Your task to perform on an android device: change your default location settings in chrome Image 0: 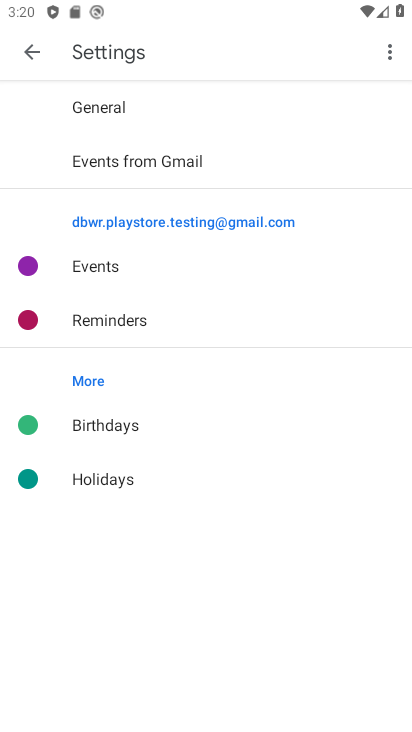
Step 0: press home button
Your task to perform on an android device: change your default location settings in chrome Image 1: 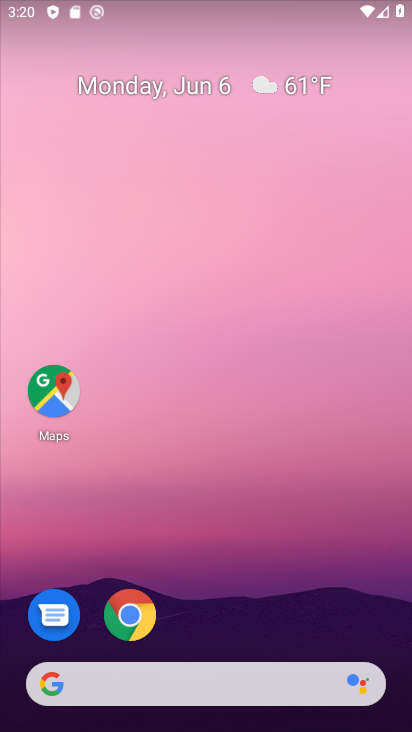
Step 1: click (131, 611)
Your task to perform on an android device: change your default location settings in chrome Image 2: 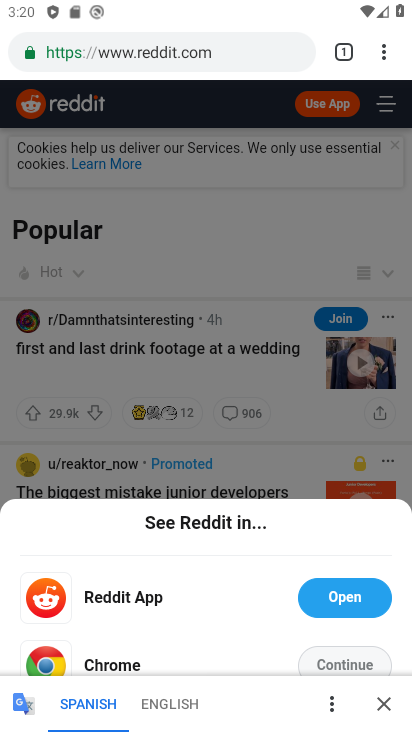
Step 2: click (382, 55)
Your task to perform on an android device: change your default location settings in chrome Image 3: 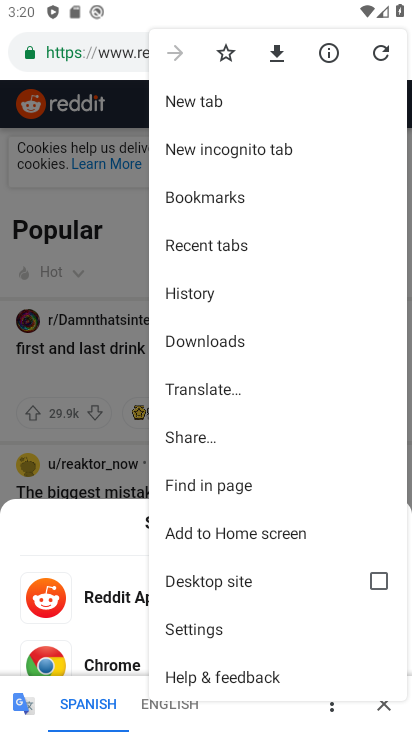
Step 3: click (201, 628)
Your task to perform on an android device: change your default location settings in chrome Image 4: 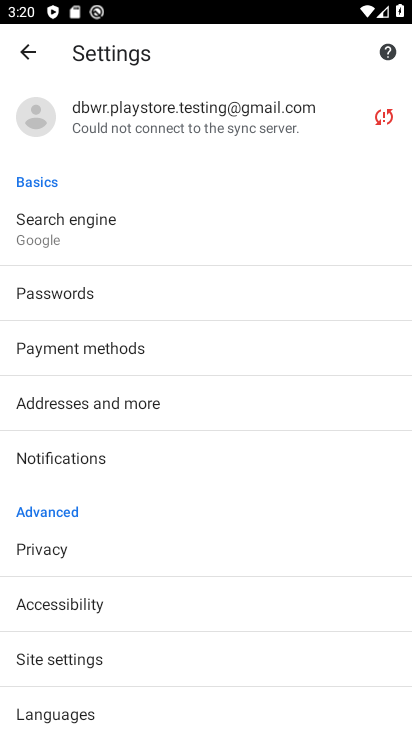
Step 4: drag from (192, 696) to (169, 332)
Your task to perform on an android device: change your default location settings in chrome Image 5: 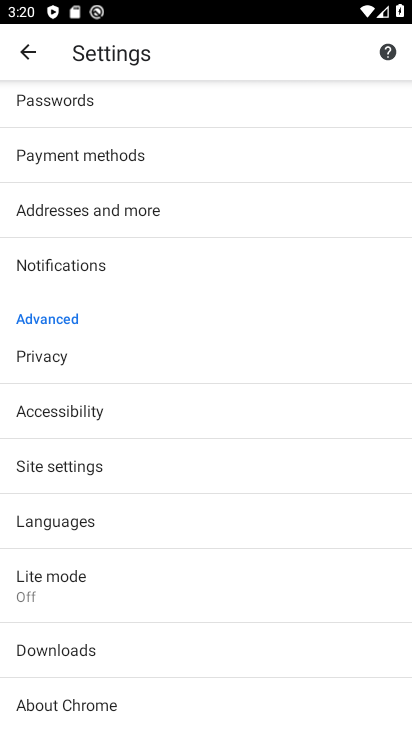
Step 5: click (66, 465)
Your task to perform on an android device: change your default location settings in chrome Image 6: 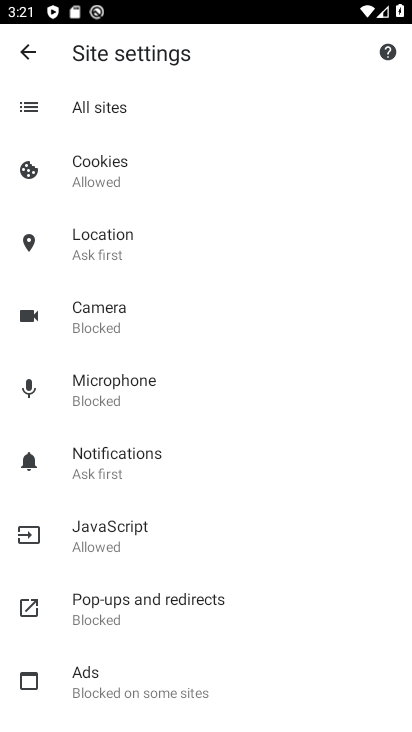
Step 6: click (92, 249)
Your task to perform on an android device: change your default location settings in chrome Image 7: 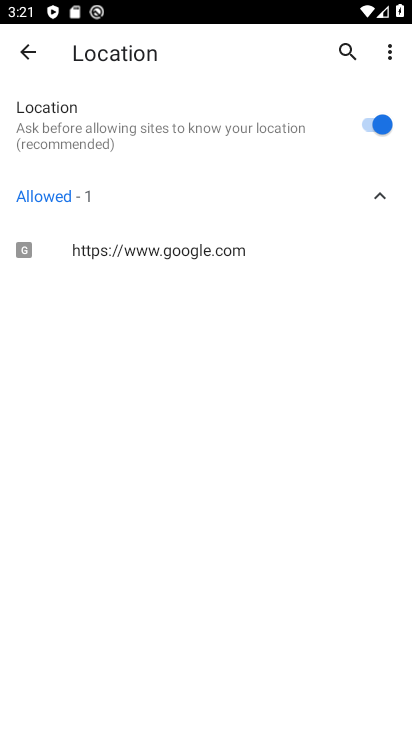
Step 7: click (363, 127)
Your task to perform on an android device: change your default location settings in chrome Image 8: 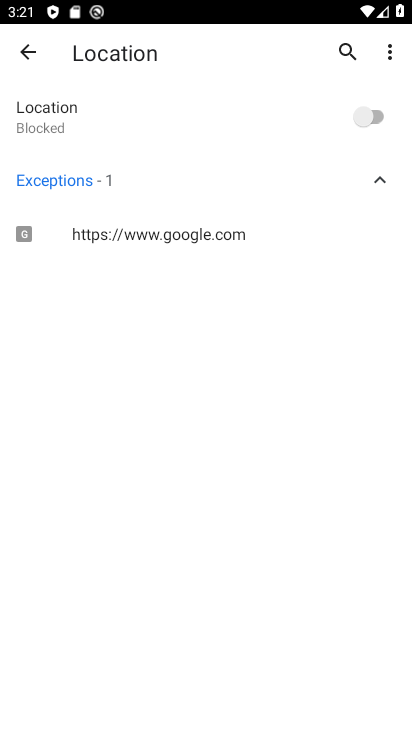
Step 8: task complete